Your task to perform on an android device: Search for pizza restaurants on Maps Image 0: 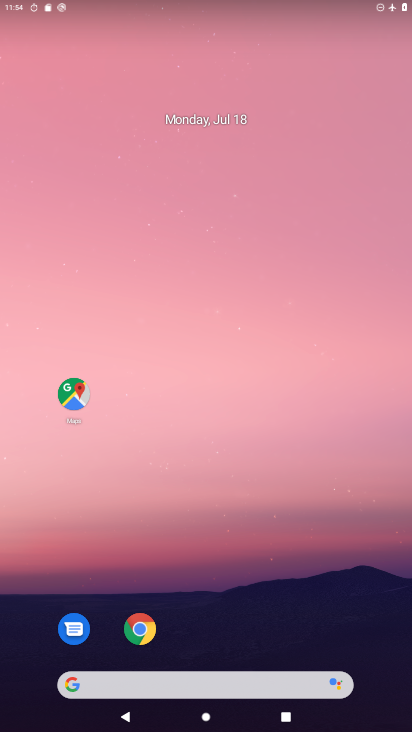
Step 0: drag from (312, 570) to (224, 0)
Your task to perform on an android device: Search for pizza restaurants on Maps Image 1: 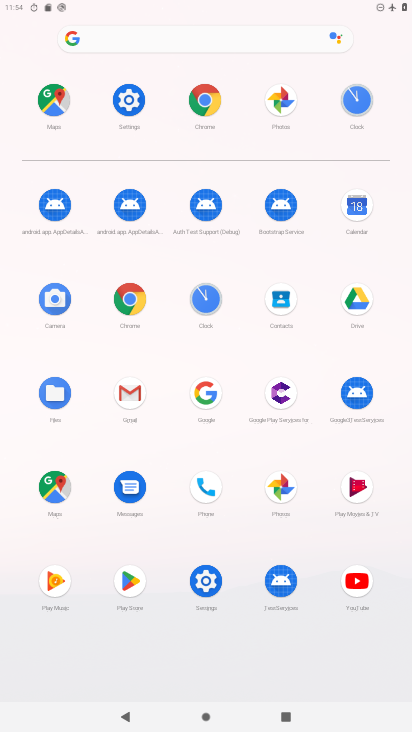
Step 1: click (54, 105)
Your task to perform on an android device: Search for pizza restaurants on Maps Image 2: 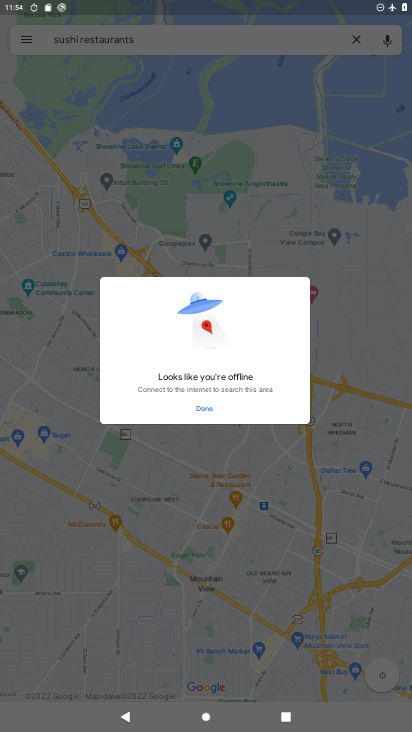
Step 2: click (207, 406)
Your task to perform on an android device: Search for pizza restaurants on Maps Image 3: 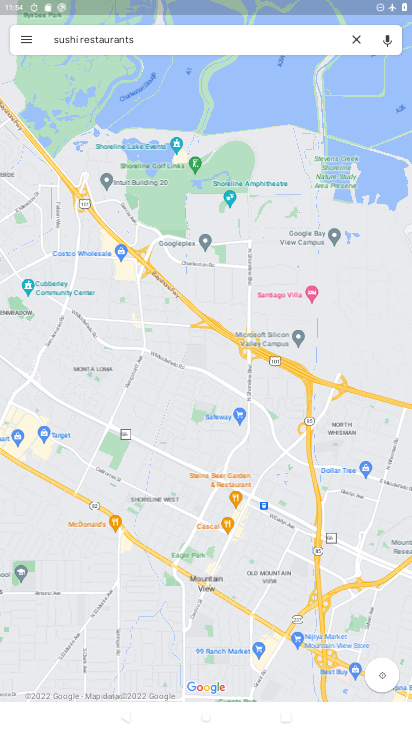
Step 3: click (264, 50)
Your task to perform on an android device: Search for pizza restaurants on Maps Image 4: 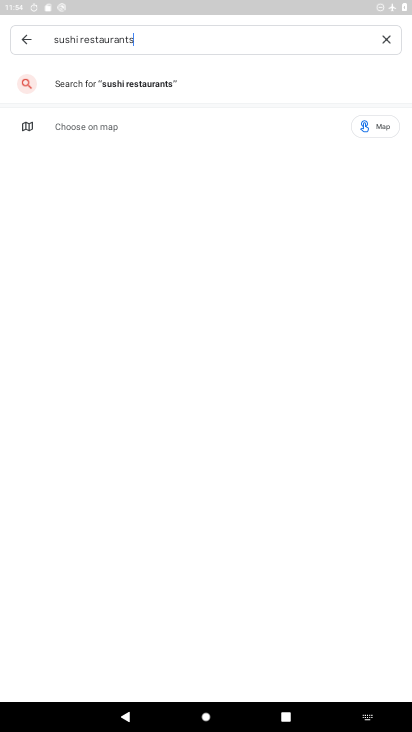
Step 4: click (404, 40)
Your task to perform on an android device: Search for pizza restaurants on Maps Image 5: 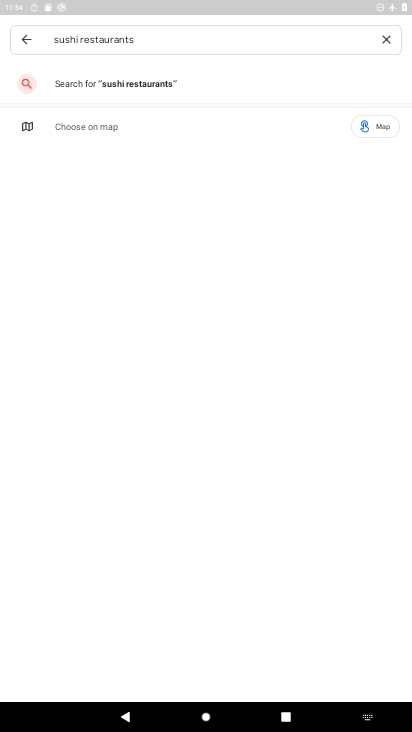
Step 5: click (394, 40)
Your task to perform on an android device: Search for pizza restaurants on Maps Image 6: 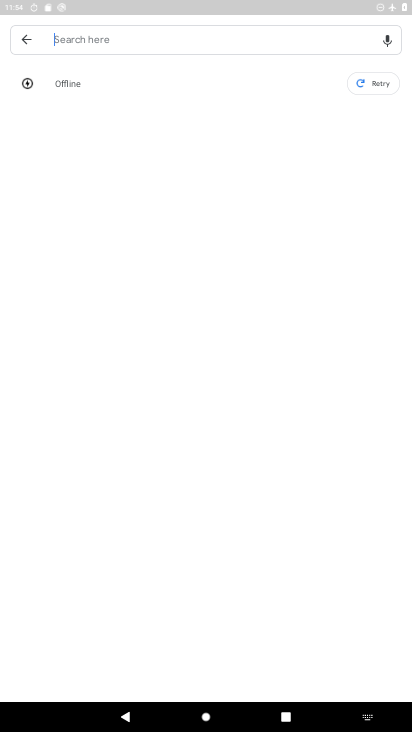
Step 6: type "pizza restaurants"
Your task to perform on an android device: Search for pizza restaurants on Maps Image 7: 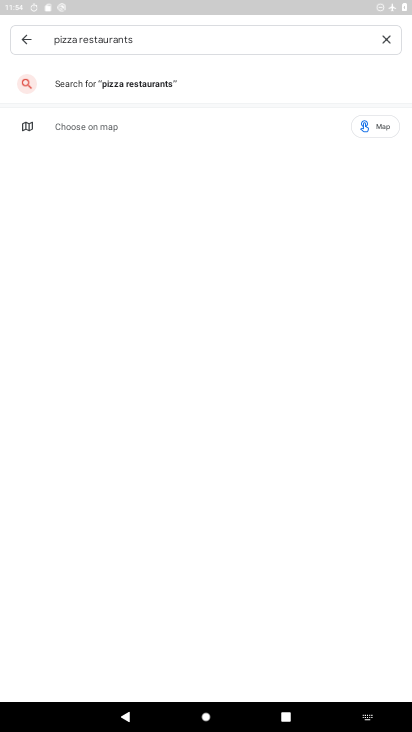
Step 7: click (160, 87)
Your task to perform on an android device: Search for pizza restaurants on Maps Image 8: 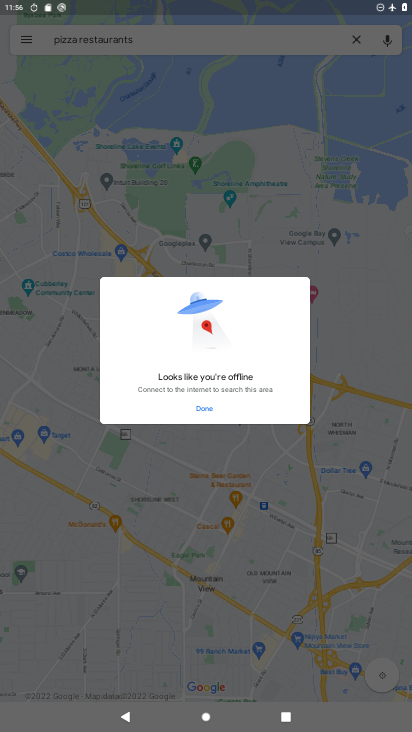
Step 8: press home button
Your task to perform on an android device: Search for pizza restaurants on Maps Image 9: 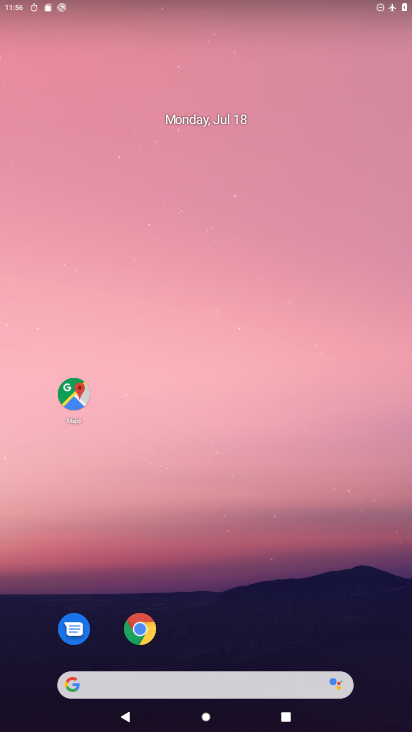
Step 9: drag from (247, 563) to (220, 76)
Your task to perform on an android device: Search for pizza restaurants on Maps Image 10: 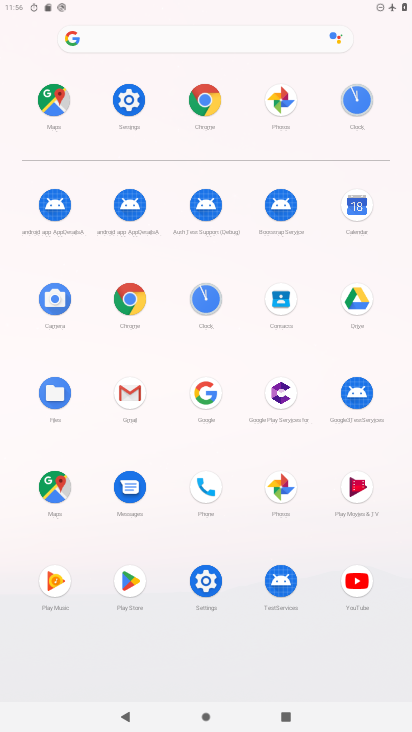
Step 10: click (48, 482)
Your task to perform on an android device: Search for pizza restaurants on Maps Image 11: 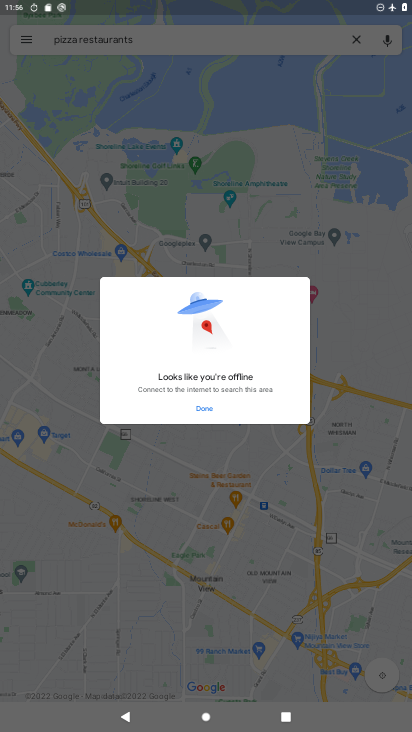
Step 11: click (222, 405)
Your task to perform on an android device: Search for pizza restaurants on Maps Image 12: 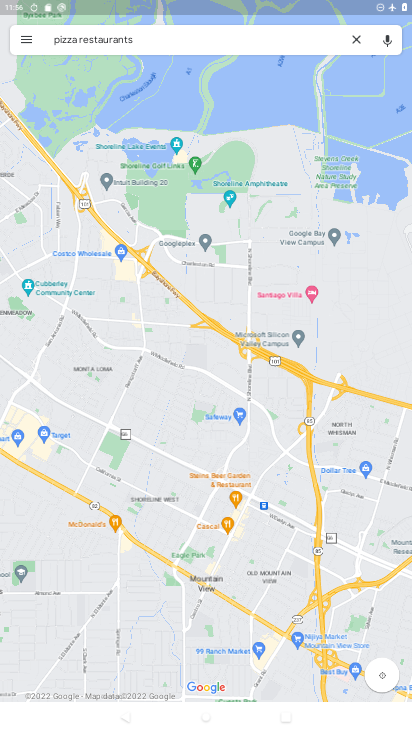
Step 12: task complete